Your task to perform on an android device: turn vacation reply on in the gmail app Image 0: 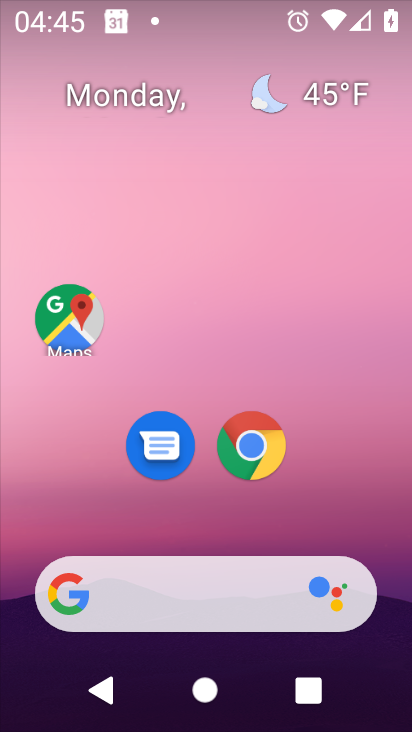
Step 0: drag from (238, 537) to (235, 97)
Your task to perform on an android device: turn vacation reply on in the gmail app Image 1: 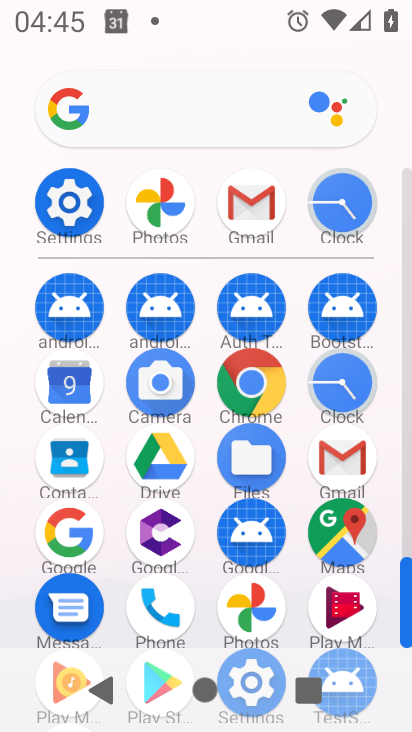
Step 1: click (341, 450)
Your task to perform on an android device: turn vacation reply on in the gmail app Image 2: 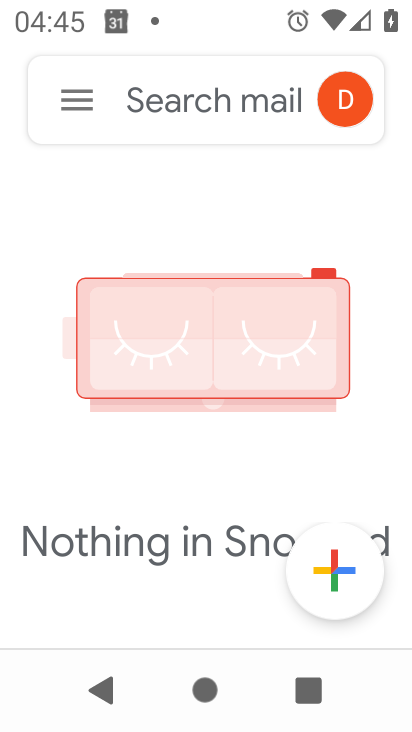
Step 2: click (77, 120)
Your task to perform on an android device: turn vacation reply on in the gmail app Image 3: 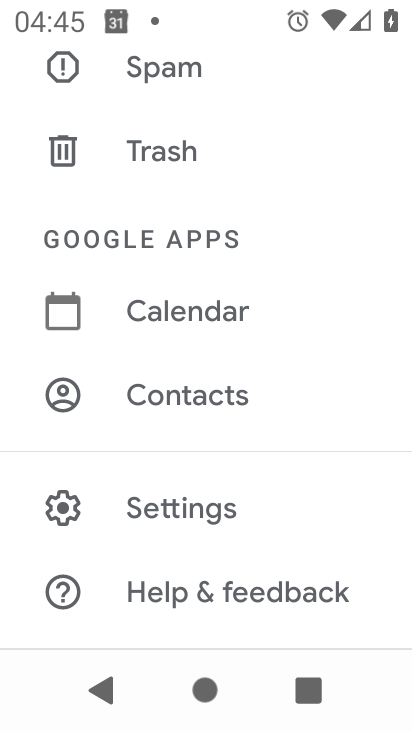
Step 3: click (150, 530)
Your task to perform on an android device: turn vacation reply on in the gmail app Image 4: 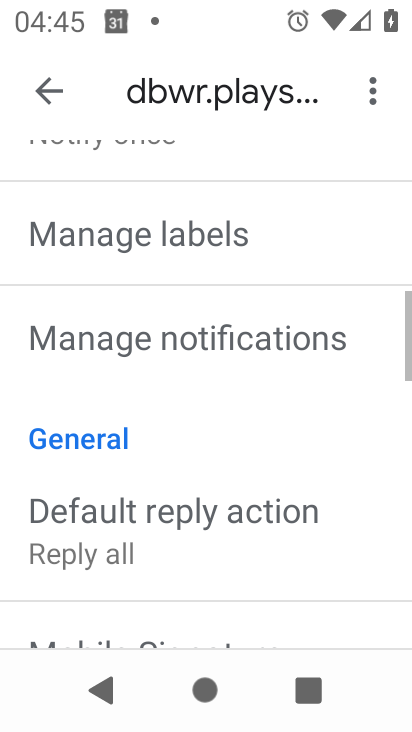
Step 4: drag from (234, 562) to (227, 260)
Your task to perform on an android device: turn vacation reply on in the gmail app Image 5: 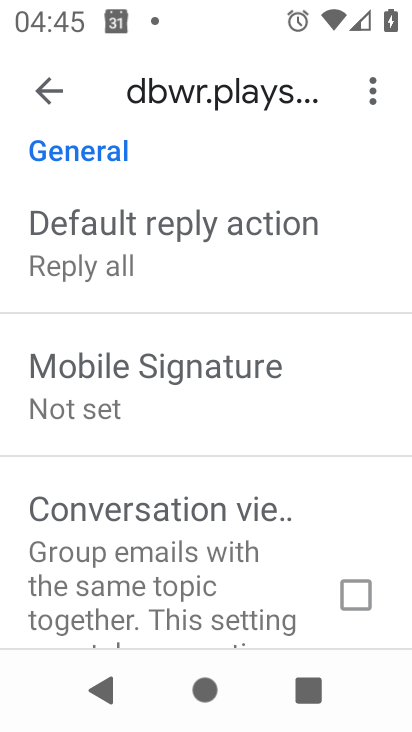
Step 5: drag from (271, 614) to (300, 316)
Your task to perform on an android device: turn vacation reply on in the gmail app Image 6: 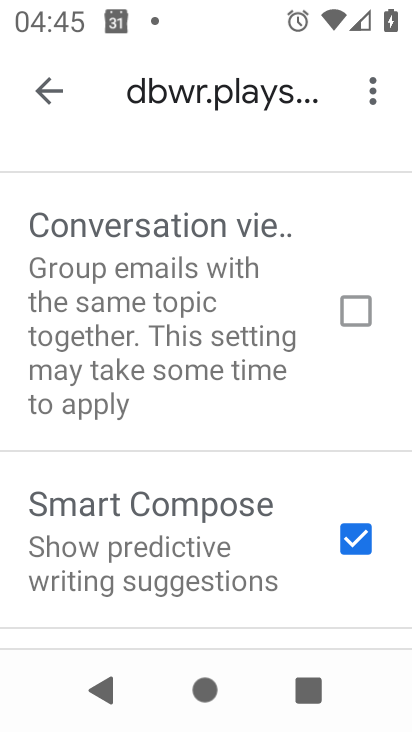
Step 6: drag from (242, 607) to (253, 275)
Your task to perform on an android device: turn vacation reply on in the gmail app Image 7: 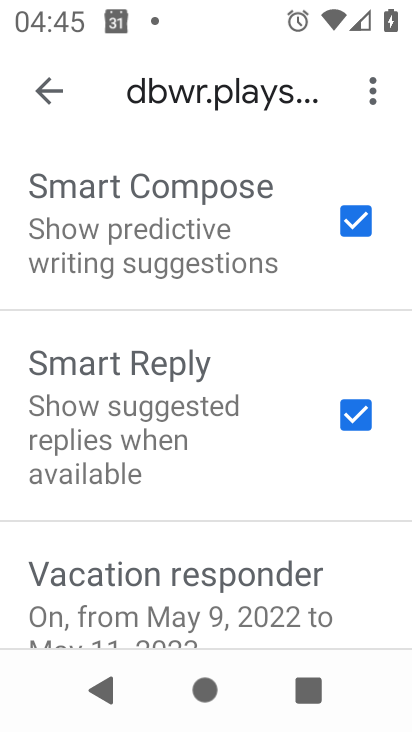
Step 7: drag from (288, 552) to (285, 233)
Your task to perform on an android device: turn vacation reply on in the gmail app Image 8: 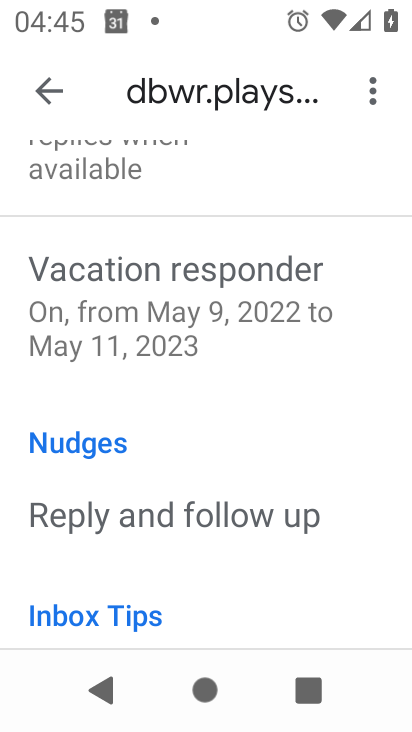
Step 8: click (182, 340)
Your task to perform on an android device: turn vacation reply on in the gmail app Image 9: 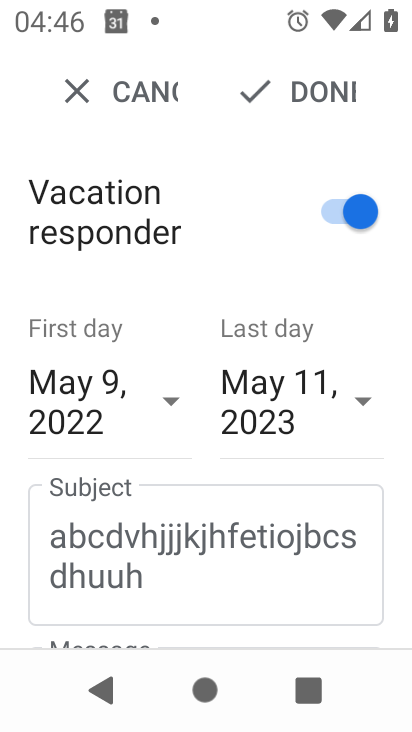
Step 9: click (335, 99)
Your task to perform on an android device: turn vacation reply on in the gmail app Image 10: 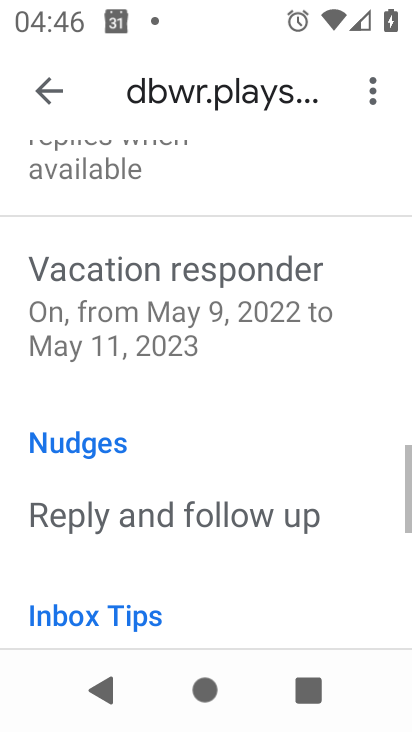
Step 10: task complete